Your task to perform on an android device: turn pop-ups on in chrome Image 0: 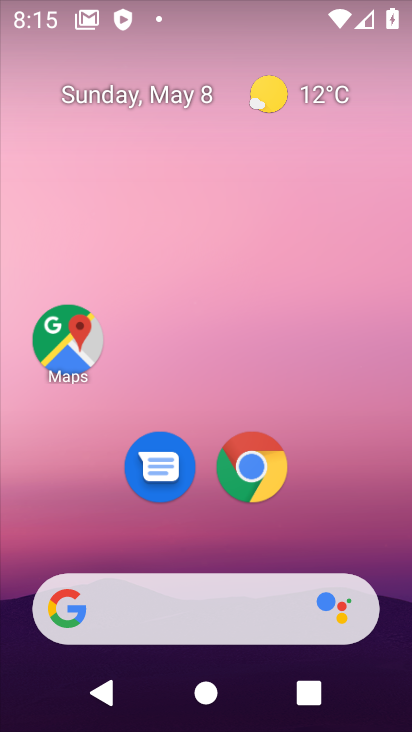
Step 0: drag from (247, 539) to (328, 70)
Your task to perform on an android device: turn pop-ups on in chrome Image 1: 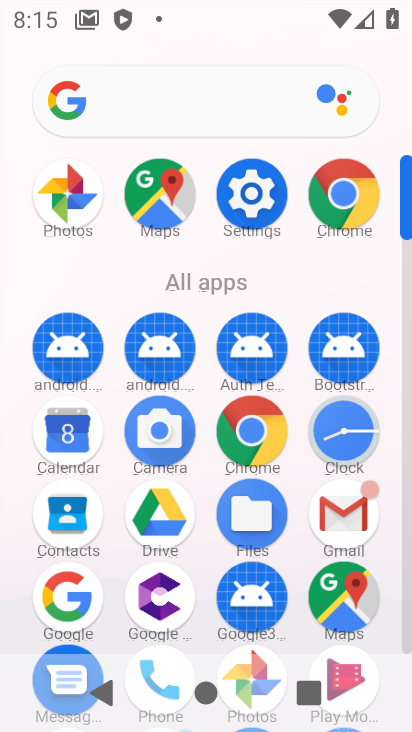
Step 1: click (354, 198)
Your task to perform on an android device: turn pop-ups on in chrome Image 2: 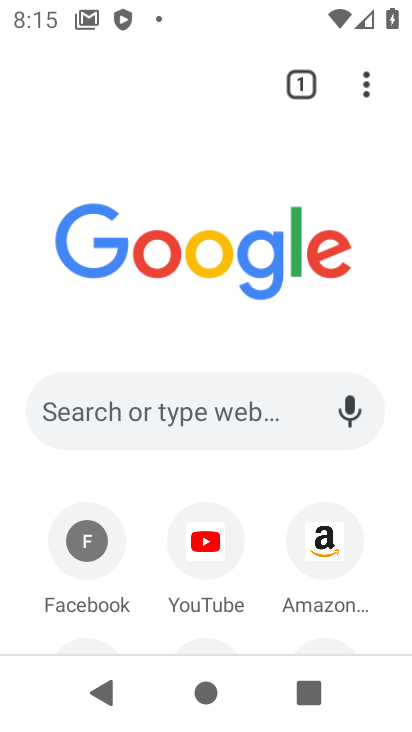
Step 2: drag from (370, 86) to (168, 520)
Your task to perform on an android device: turn pop-ups on in chrome Image 3: 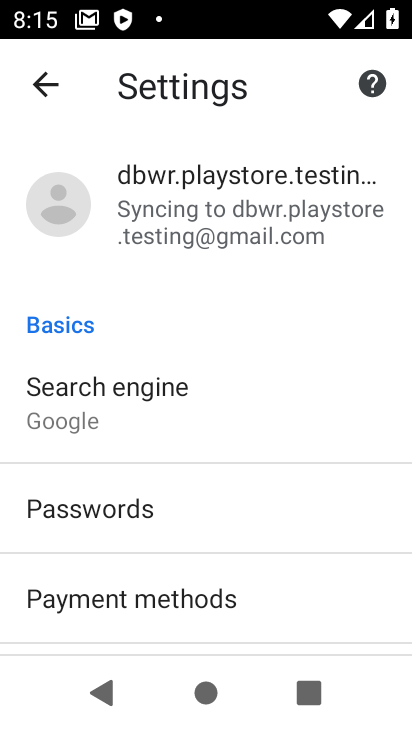
Step 3: drag from (189, 586) to (316, 79)
Your task to perform on an android device: turn pop-ups on in chrome Image 4: 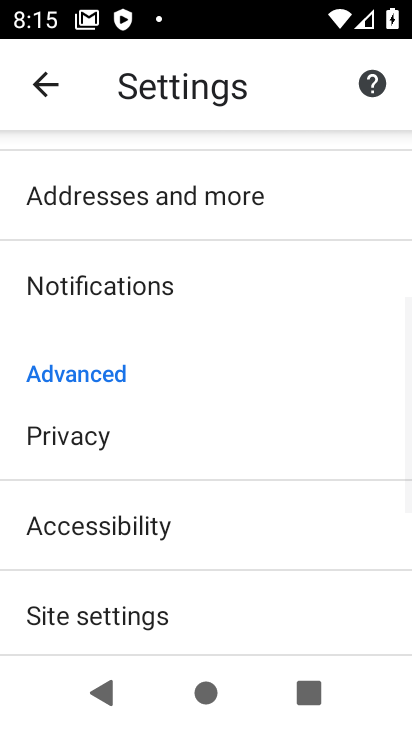
Step 4: drag from (183, 574) to (251, 297)
Your task to perform on an android device: turn pop-ups on in chrome Image 5: 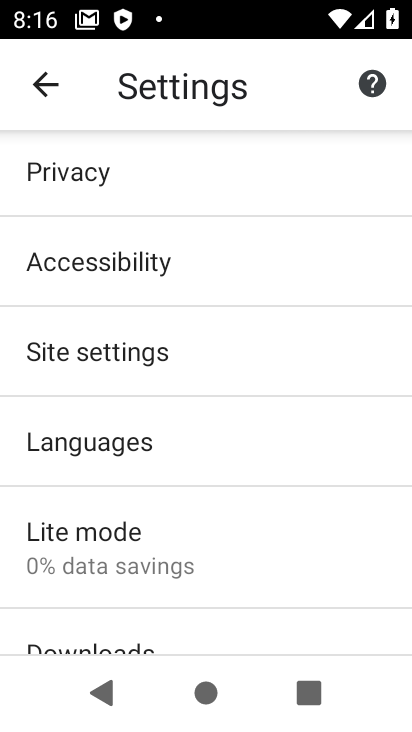
Step 5: click (90, 348)
Your task to perform on an android device: turn pop-ups on in chrome Image 6: 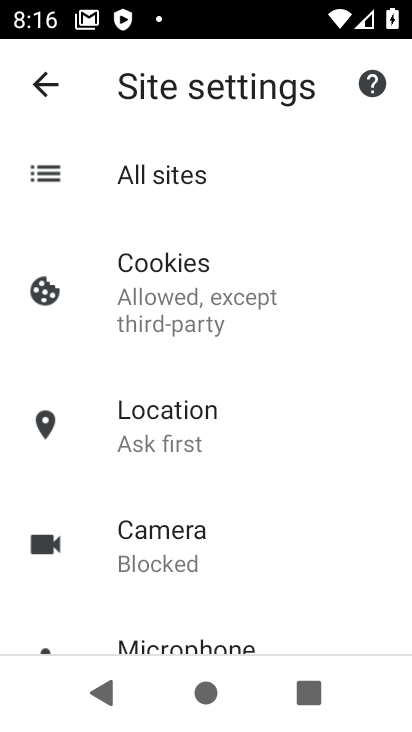
Step 6: drag from (211, 561) to (311, 186)
Your task to perform on an android device: turn pop-ups on in chrome Image 7: 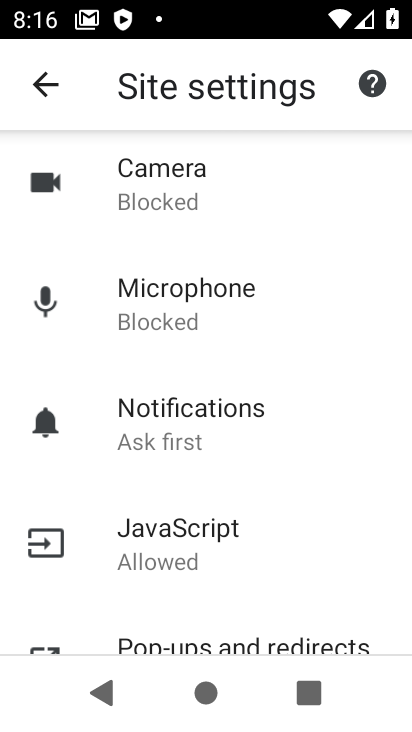
Step 7: drag from (214, 595) to (245, 401)
Your task to perform on an android device: turn pop-ups on in chrome Image 8: 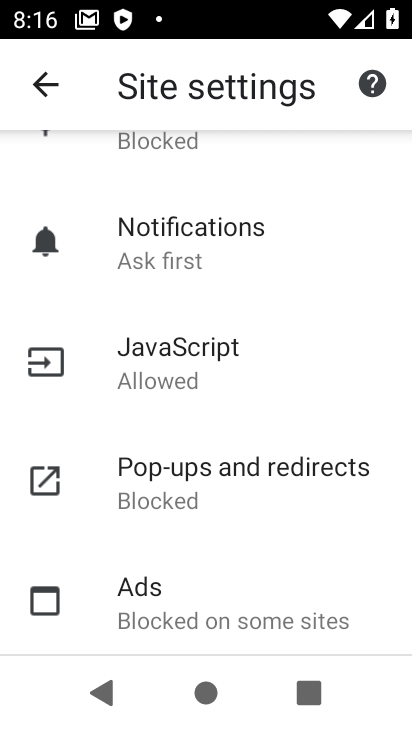
Step 8: click (181, 472)
Your task to perform on an android device: turn pop-ups on in chrome Image 9: 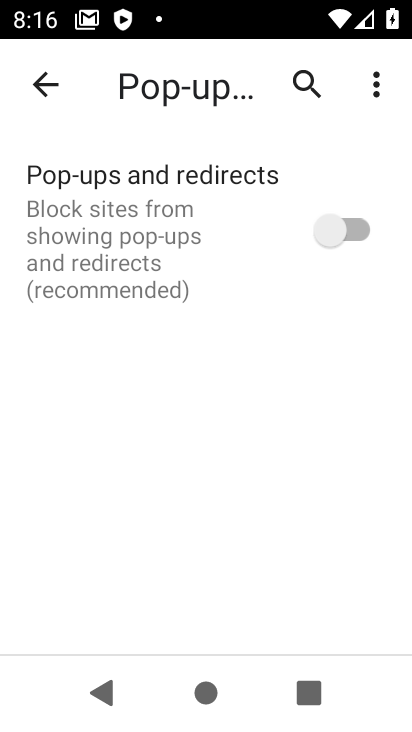
Step 9: click (333, 219)
Your task to perform on an android device: turn pop-ups on in chrome Image 10: 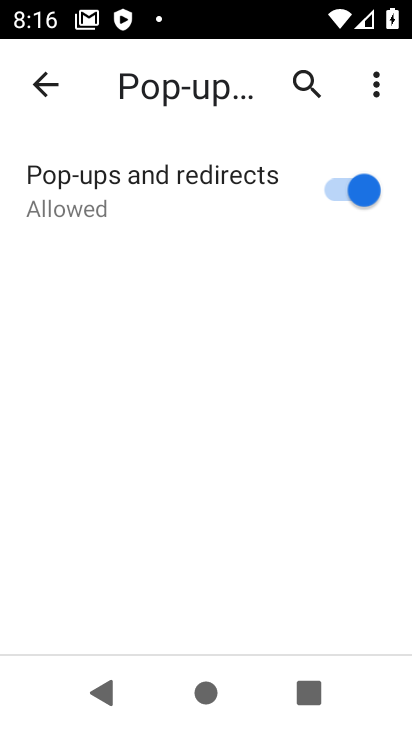
Step 10: task complete